Your task to perform on an android device: Open the map Image 0: 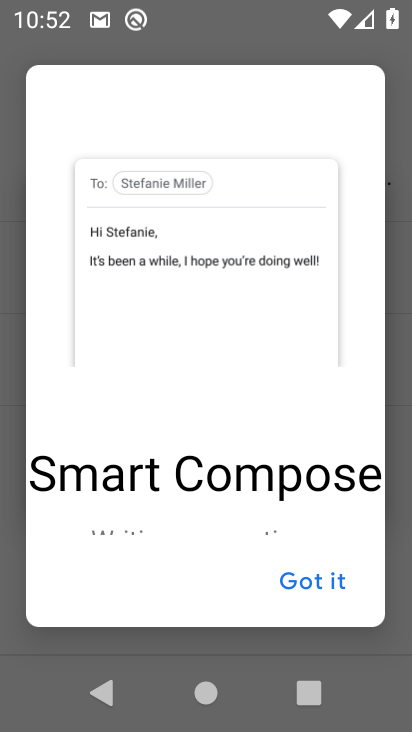
Step 0: click (330, 572)
Your task to perform on an android device: Open the map Image 1: 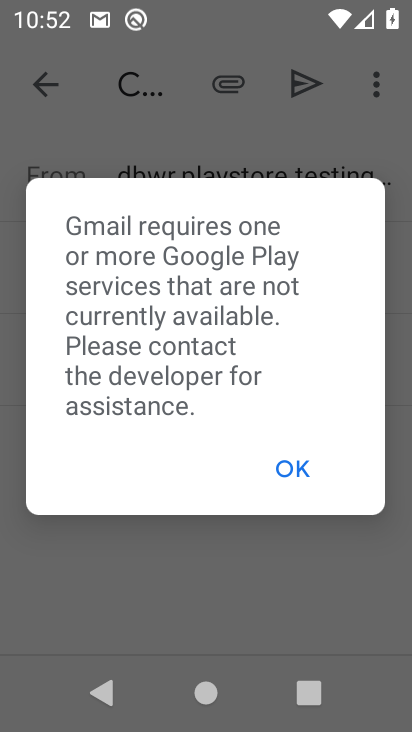
Step 1: click (290, 486)
Your task to perform on an android device: Open the map Image 2: 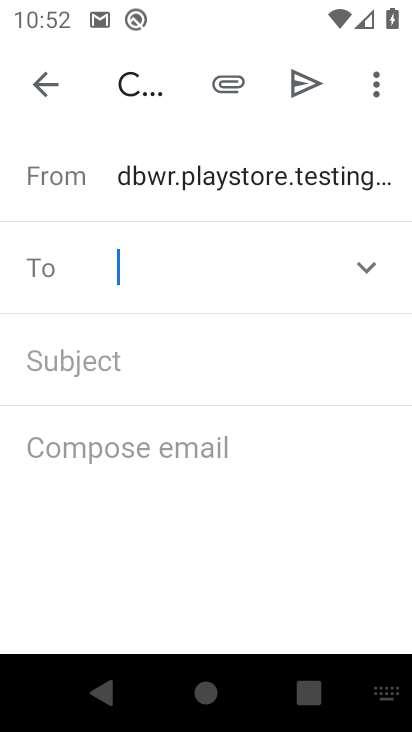
Step 2: drag from (233, 559) to (249, 246)
Your task to perform on an android device: Open the map Image 3: 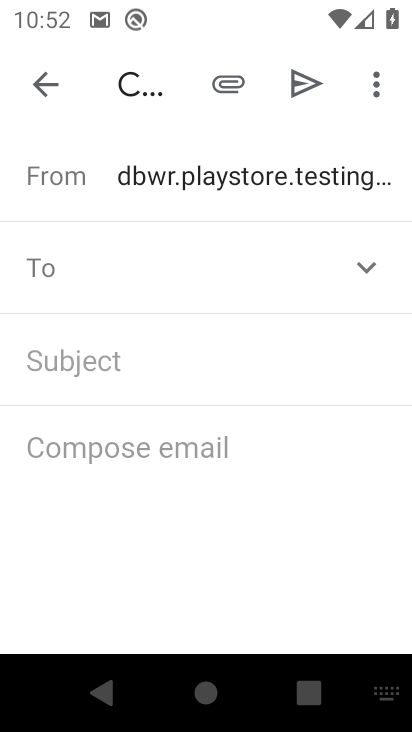
Step 3: press home button
Your task to perform on an android device: Open the map Image 4: 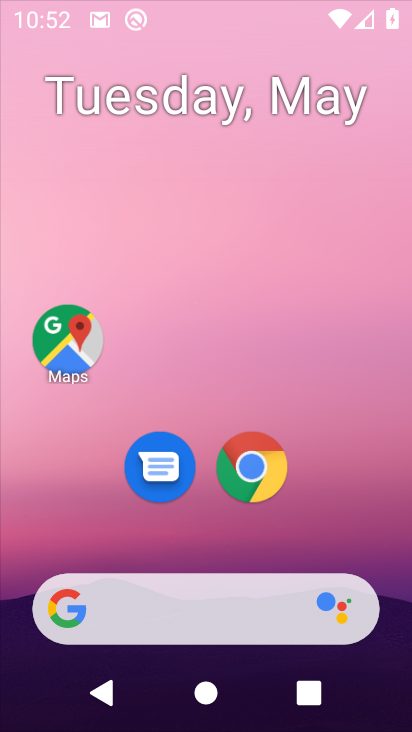
Step 4: drag from (219, 563) to (411, 490)
Your task to perform on an android device: Open the map Image 5: 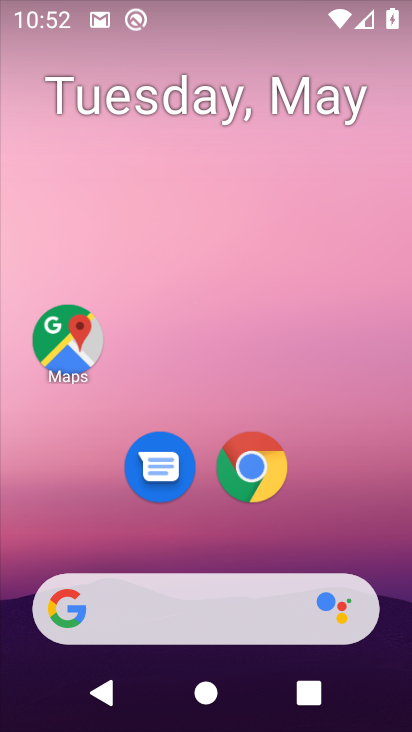
Step 5: drag from (201, 550) to (219, 102)
Your task to perform on an android device: Open the map Image 6: 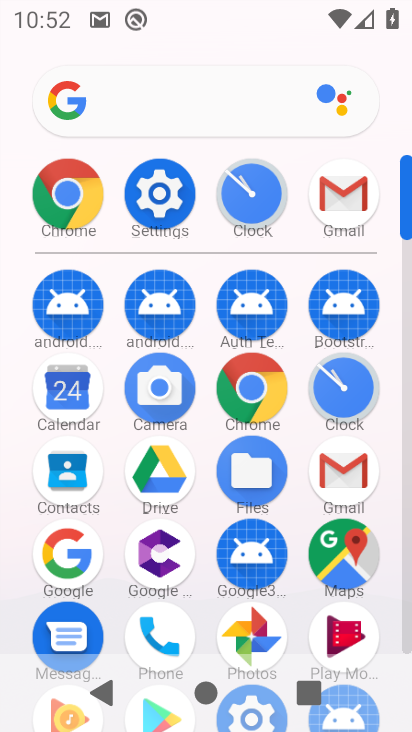
Step 6: click (340, 548)
Your task to perform on an android device: Open the map Image 7: 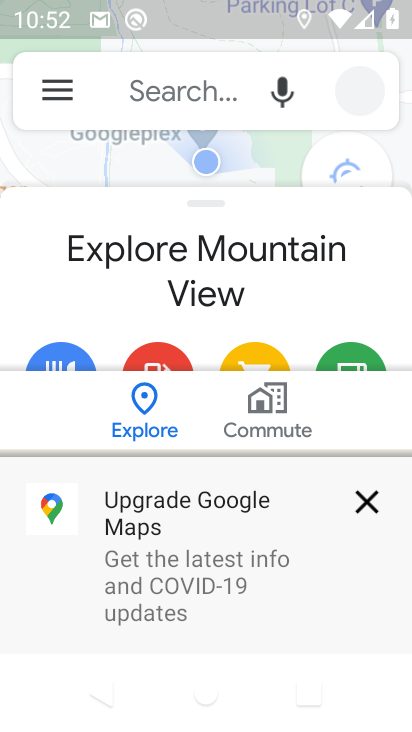
Step 7: task complete